Your task to perform on an android device: stop showing notifications on the lock screen Image 0: 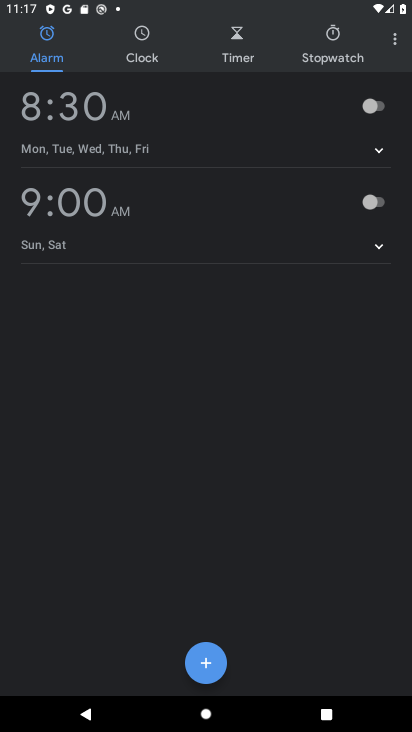
Step 0: press home button
Your task to perform on an android device: stop showing notifications on the lock screen Image 1: 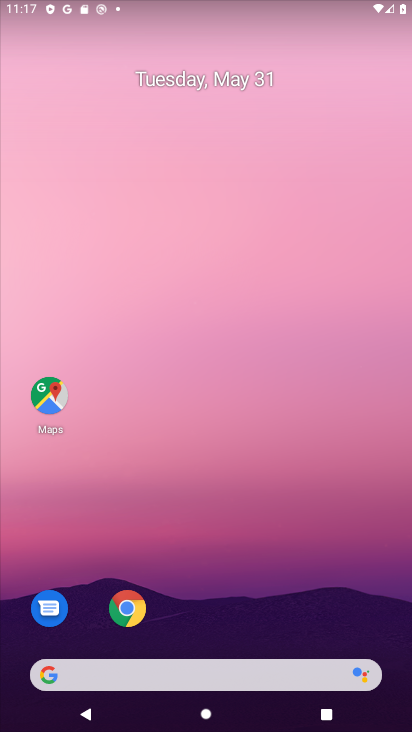
Step 1: drag from (232, 595) to (234, 4)
Your task to perform on an android device: stop showing notifications on the lock screen Image 2: 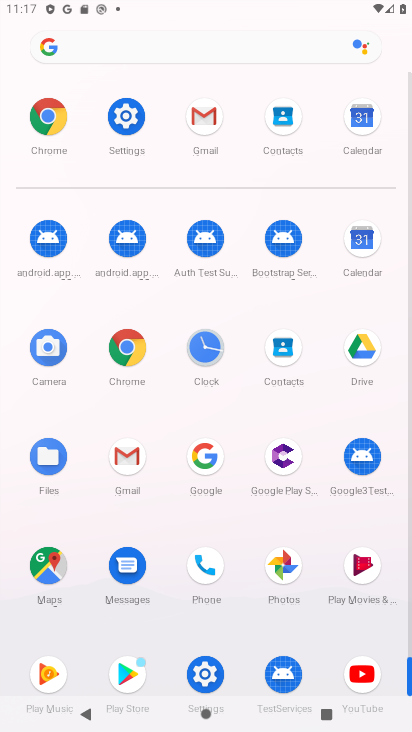
Step 2: click (126, 99)
Your task to perform on an android device: stop showing notifications on the lock screen Image 3: 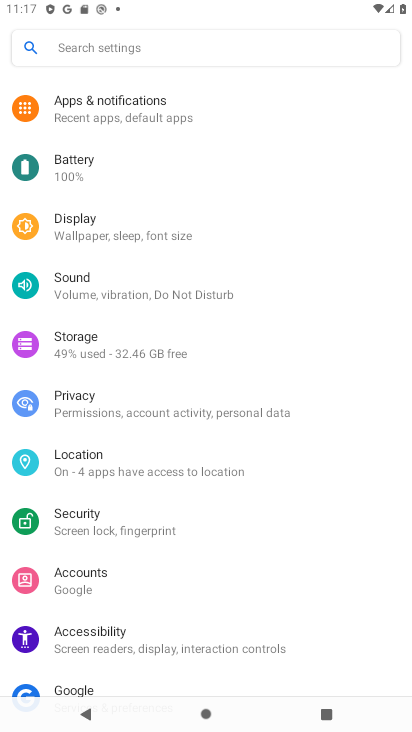
Step 3: click (120, 128)
Your task to perform on an android device: stop showing notifications on the lock screen Image 4: 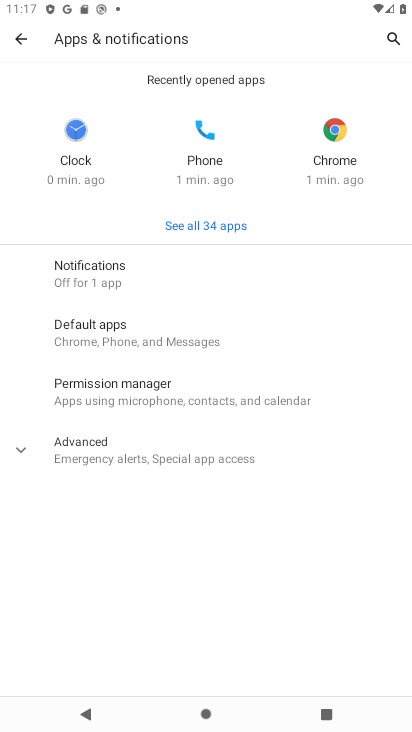
Step 4: click (108, 264)
Your task to perform on an android device: stop showing notifications on the lock screen Image 5: 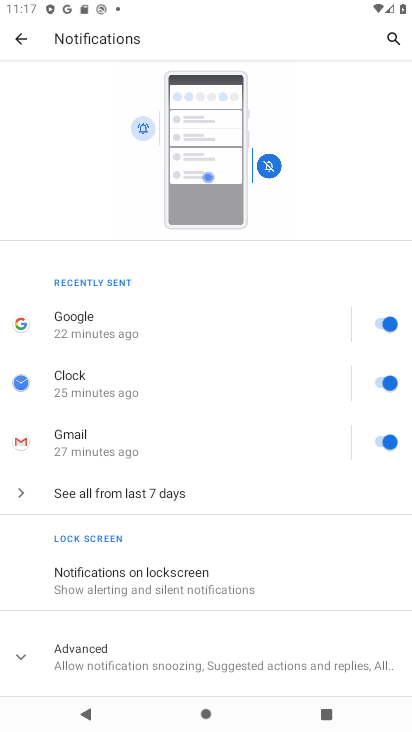
Step 5: drag from (162, 511) to (217, 31)
Your task to perform on an android device: stop showing notifications on the lock screen Image 6: 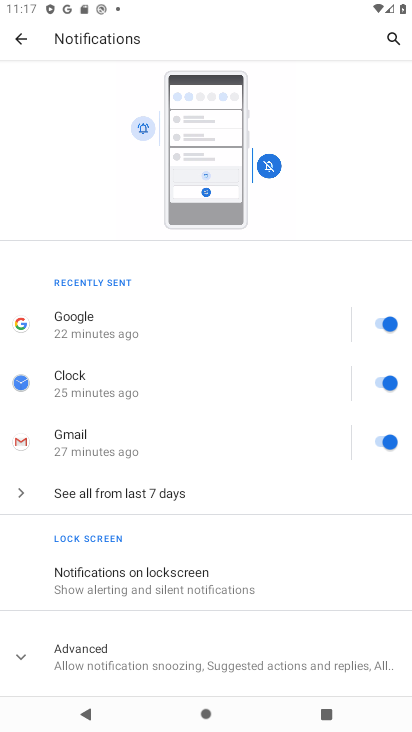
Step 6: click (112, 560)
Your task to perform on an android device: stop showing notifications on the lock screen Image 7: 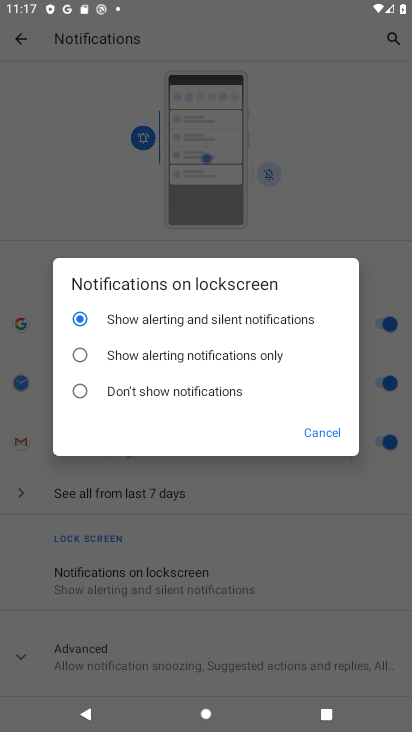
Step 7: click (124, 384)
Your task to perform on an android device: stop showing notifications on the lock screen Image 8: 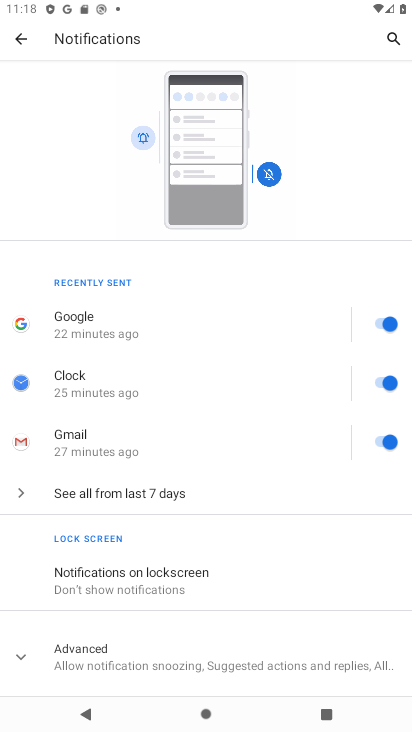
Step 8: task complete